Your task to perform on an android device: Open network settings Image 0: 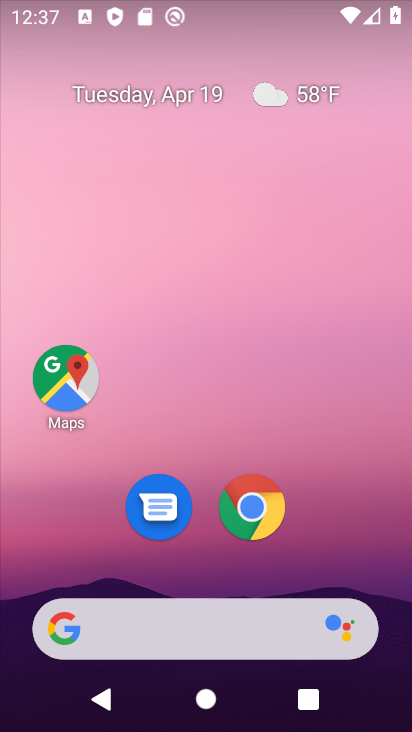
Step 0: drag from (212, 567) to (235, 59)
Your task to perform on an android device: Open network settings Image 1: 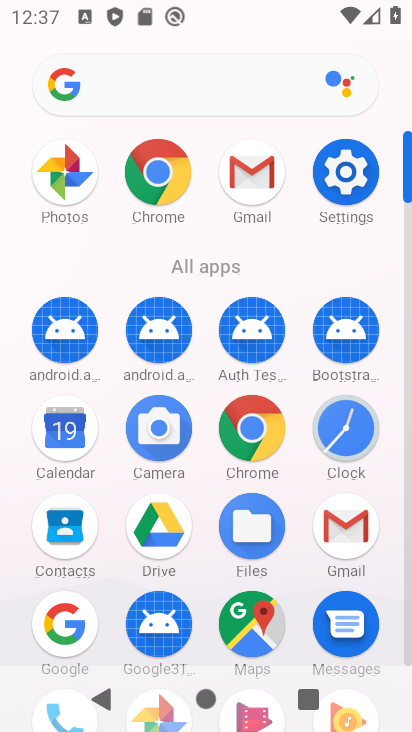
Step 1: click (342, 198)
Your task to perform on an android device: Open network settings Image 2: 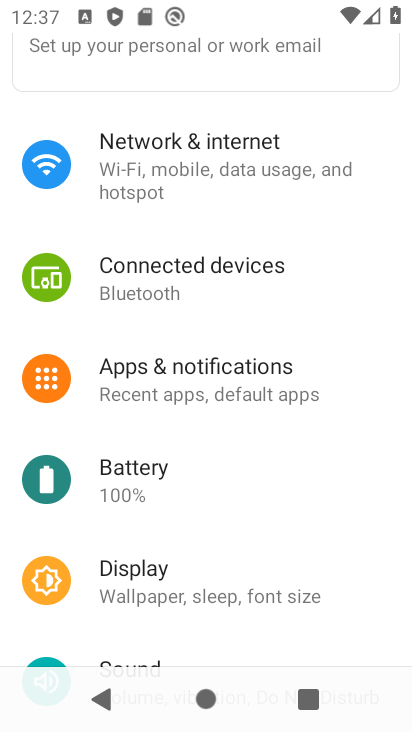
Step 2: click (246, 170)
Your task to perform on an android device: Open network settings Image 3: 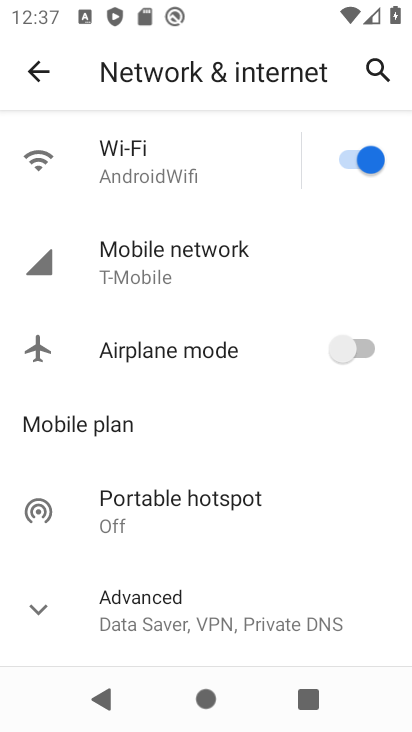
Step 3: click (214, 270)
Your task to perform on an android device: Open network settings Image 4: 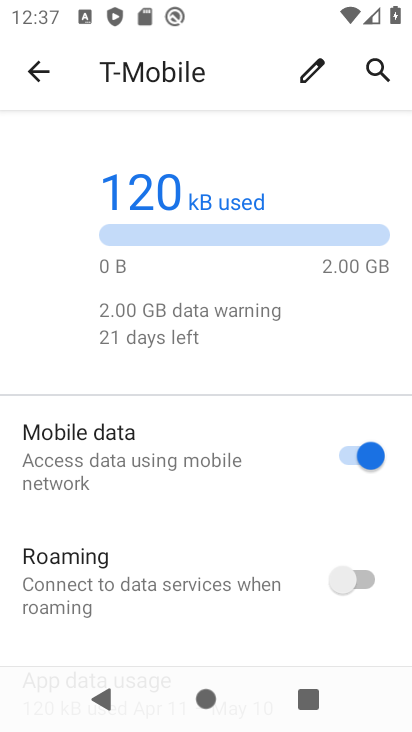
Step 4: drag from (200, 539) to (208, 183)
Your task to perform on an android device: Open network settings Image 5: 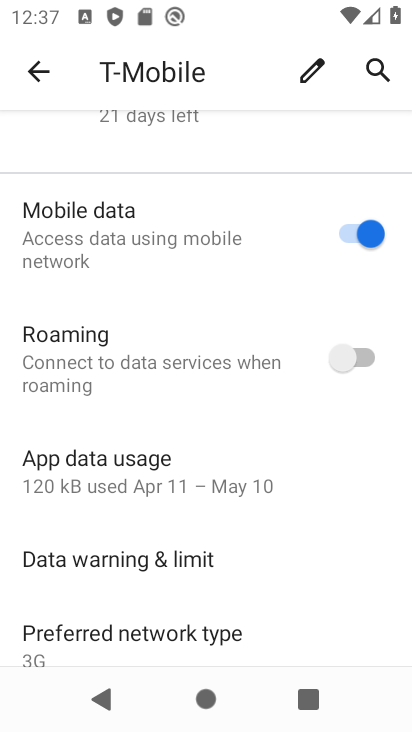
Step 5: drag from (183, 536) to (206, 268)
Your task to perform on an android device: Open network settings Image 6: 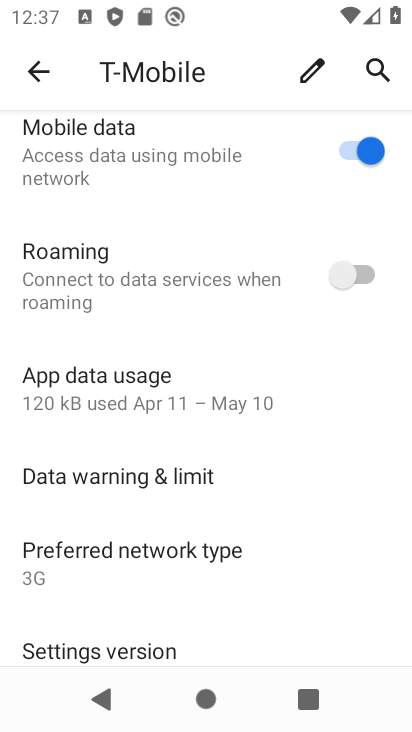
Step 6: drag from (174, 621) to (202, 193)
Your task to perform on an android device: Open network settings Image 7: 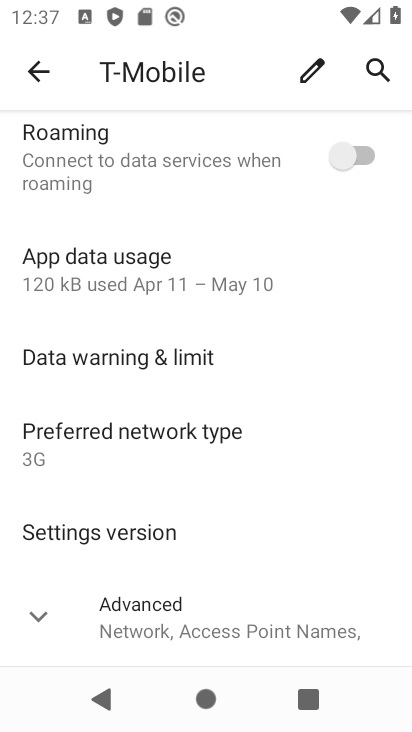
Step 7: click (175, 595)
Your task to perform on an android device: Open network settings Image 8: 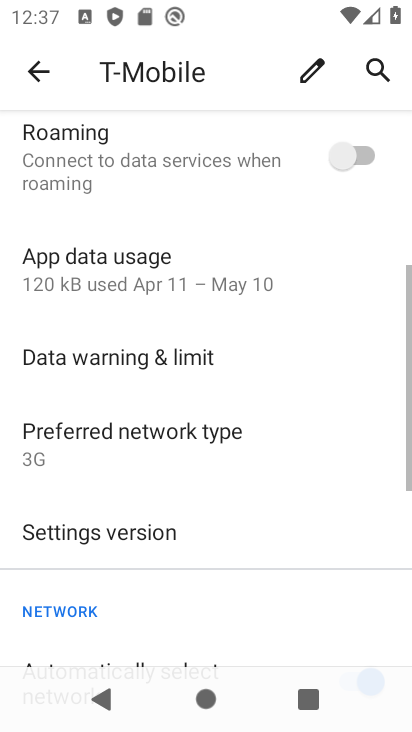
Step 8: task complete